Your task to perform on an android device: Open Google Maps and go to "Timeline" Image 0: 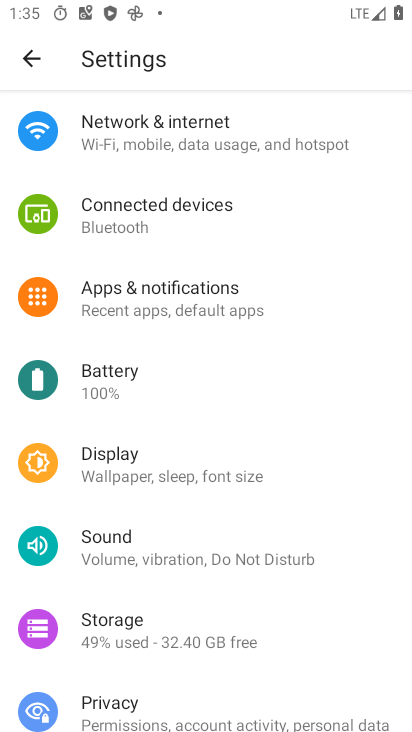
Step 0: press home button
Your task to perform on an android device: Open Google Maps and go to "Timeline" Image 1: 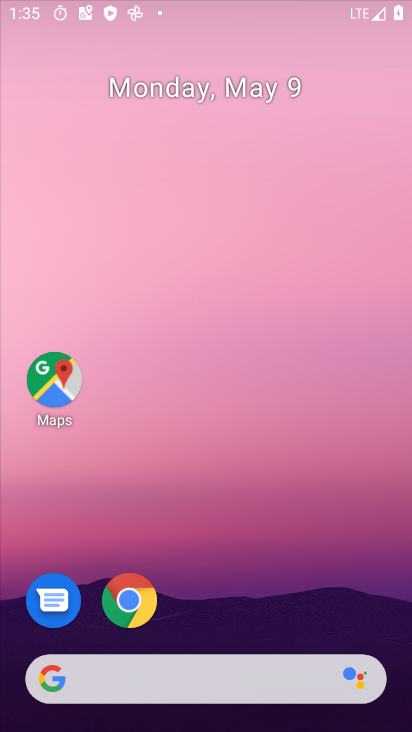
Step 1: drag from (201, 550) to (251, 190)
Your task to perform on an android device: Open Google Maps and go to "Timeline" Image 2: 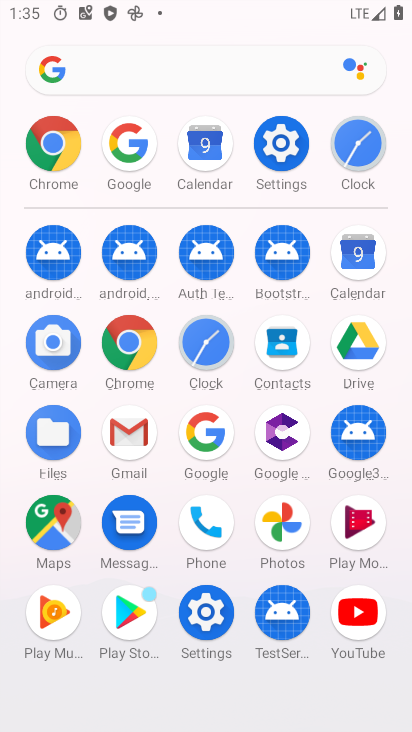
Step 2: click (39, 522)
Your task to perform on an android device: Open Google Maps and go to "Timeline" Image 3: 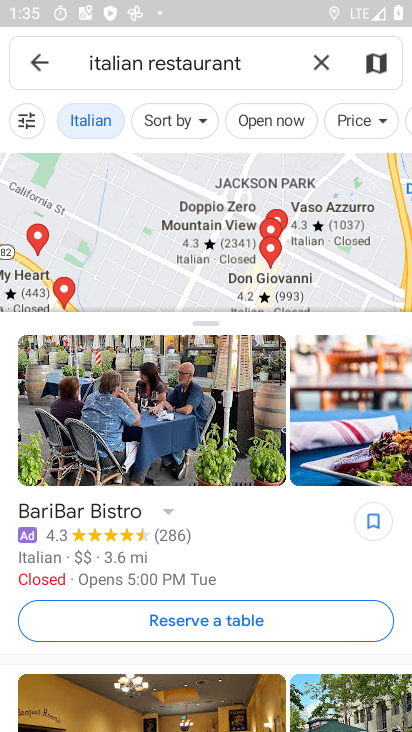
Step 3: click (46, 72)
Your task to perform on an android device: Open Google Maps and go to "Timeline" Image 4: 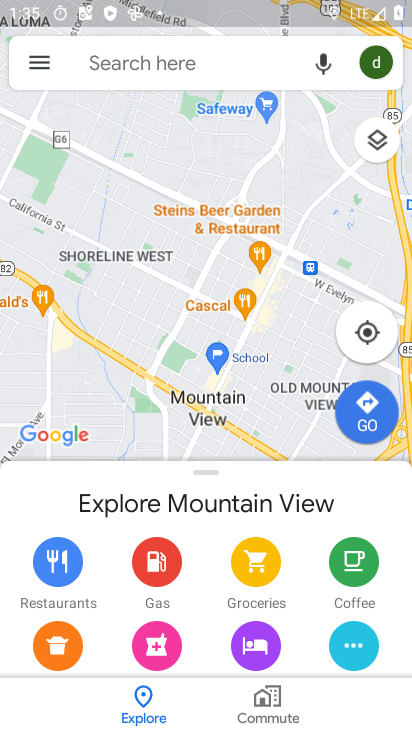
Step 4: click (33, 66)
Your task to perform on an android device: Open Google Maps and go to "Timeline" Image 5: 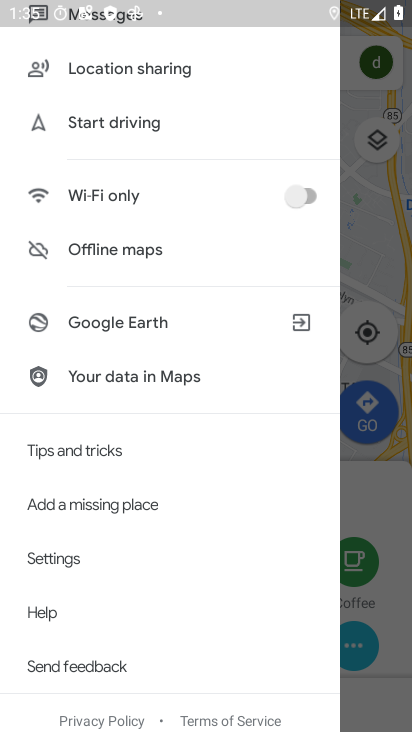
Step 5: drag from (143, 234) to (149, 526)
Your task to perform on an android device: Open Google Maps and go to "Timeline" Image 6: 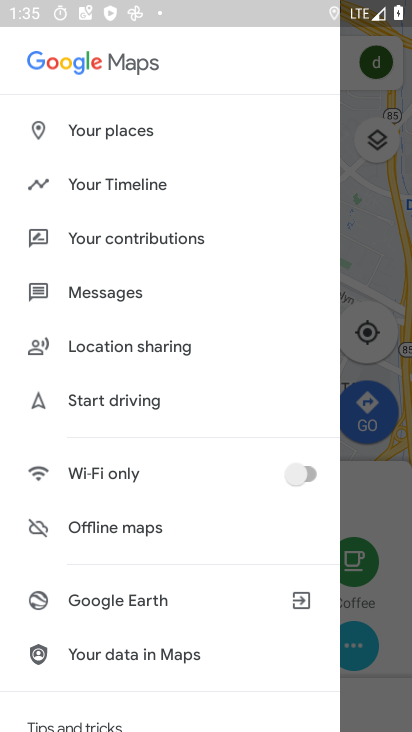
Step 6: click (143, 196)
Your task to perform on an android device: Open Google Maps and go to "Timeline" Image 7: 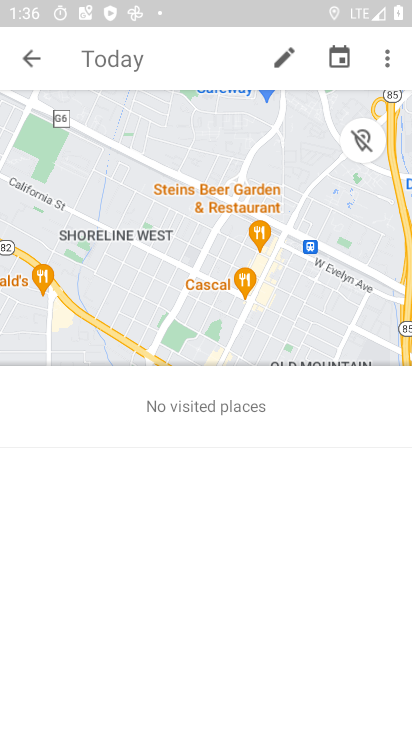
Step 7: task complete